Your task to perform on an android device: turn off notifications in google photos Image 0: 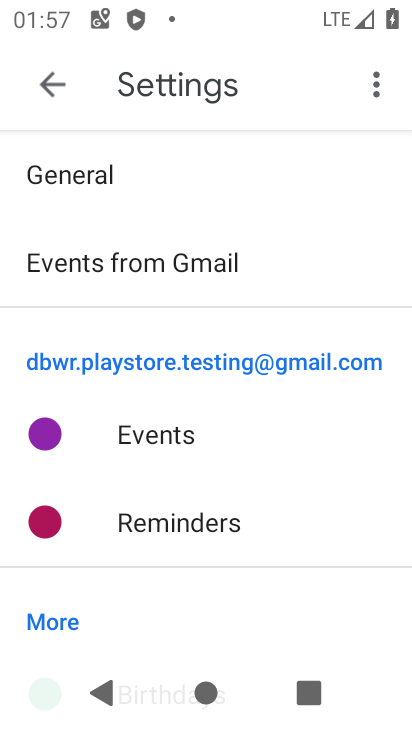
Step 0: press home button
Your task to perform on an android device: turn off notifications in google photos Image 1: 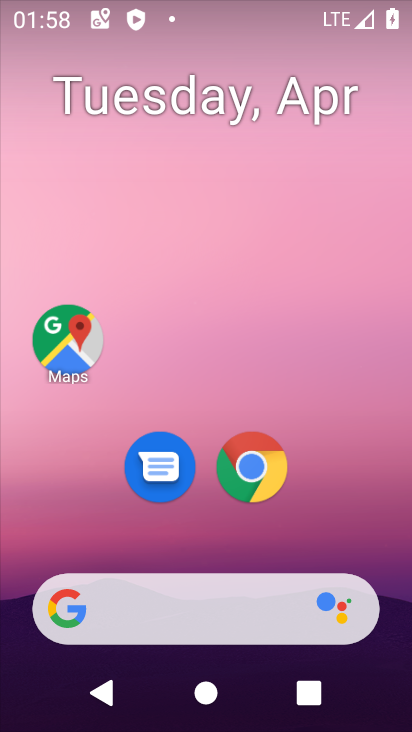
Step 1: drag from (387, 536) to (390, 151)
Your task to perform on an android device: turn off notifications in google photos Image 2: 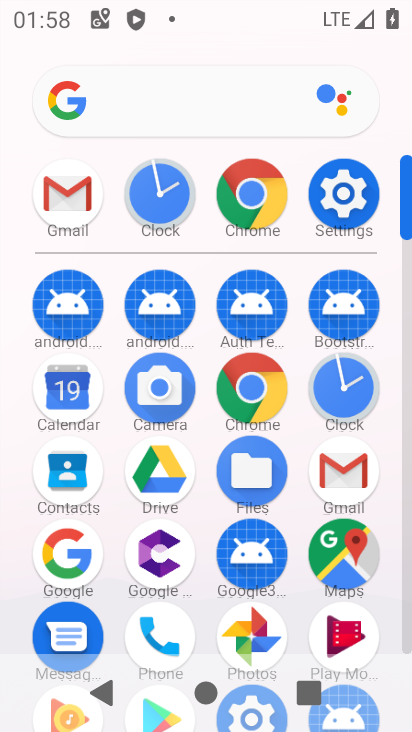
Step 2: drag from (394, 560) to (409, 240)
Your task to perform on an android device: turn off notifications in google photos Image 3: 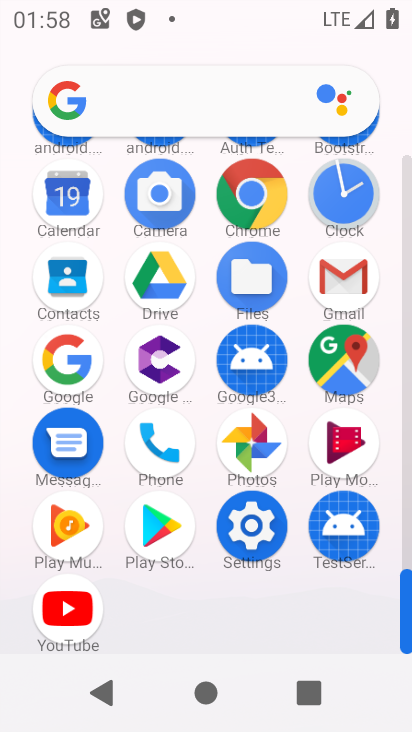
Step 3: click (256, 442)
Your task to perform on an android device: turn off notifications in google photos Image 4: 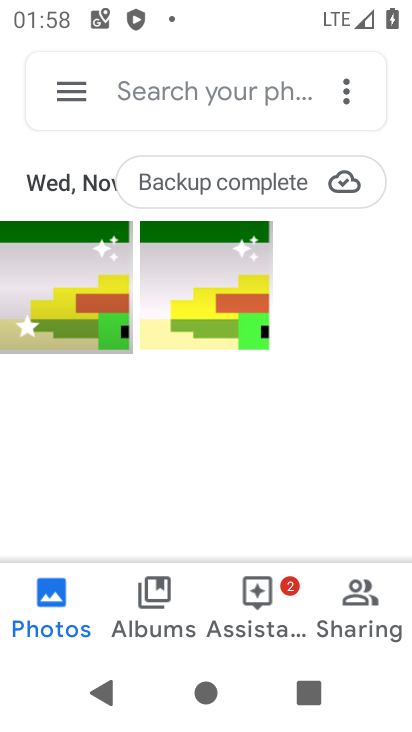
Step 4: click (60, 91)
Your task to perform on an android device: turn off notifications in google photos Image 5: 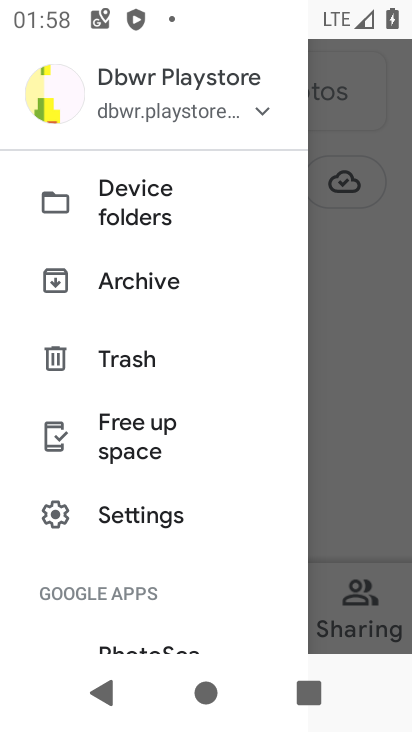
Step 5: click (143, 512)
Your task to perform on an android device: turn off notifications in google photos Image 6: 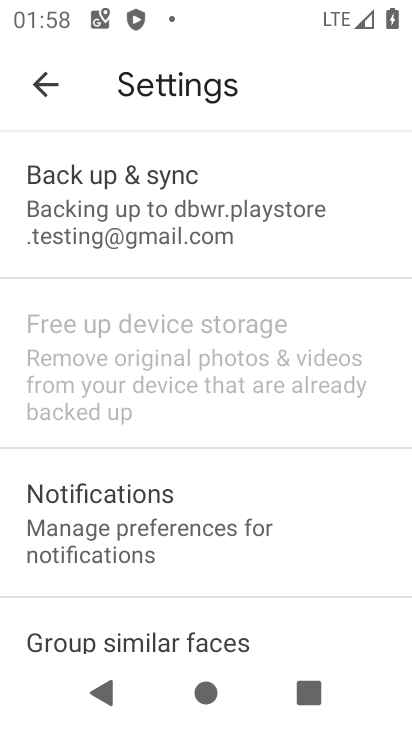
Step 6: click (184, 536)
Your task to perform on an android device: turn off notifications in google photos Image 7: 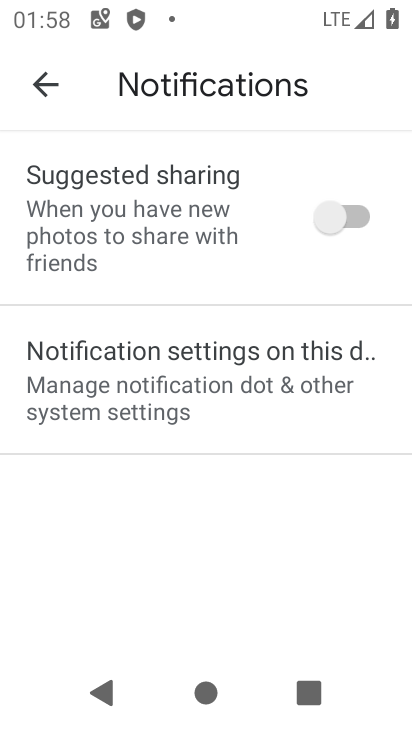
Step 7: click (237, 377)
Your task to perform on an android device: turn off notifications in google photos Image 8: 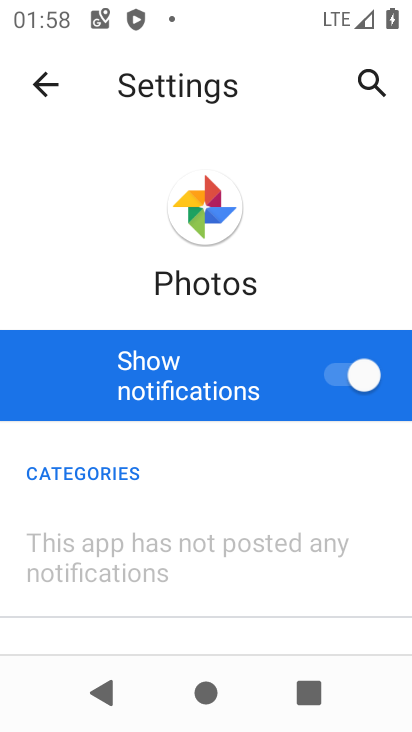
Step 8: click (363, 376)
Your task to perform on an android device: turn off notifications in google photos Image 9: 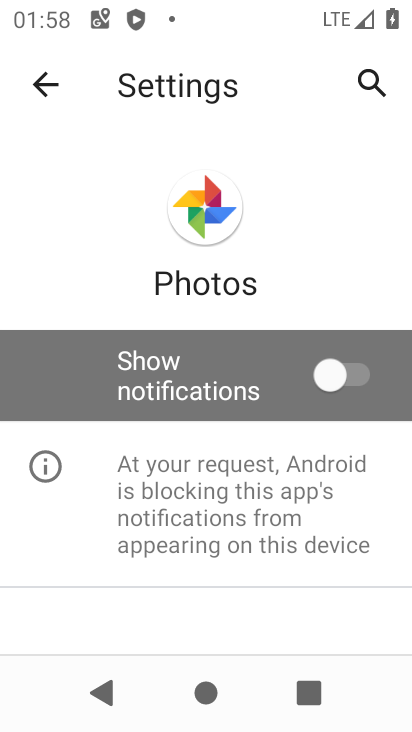
Step 9: task complete